Your task to perform on an android device: Turn on the flashlight Image 0: 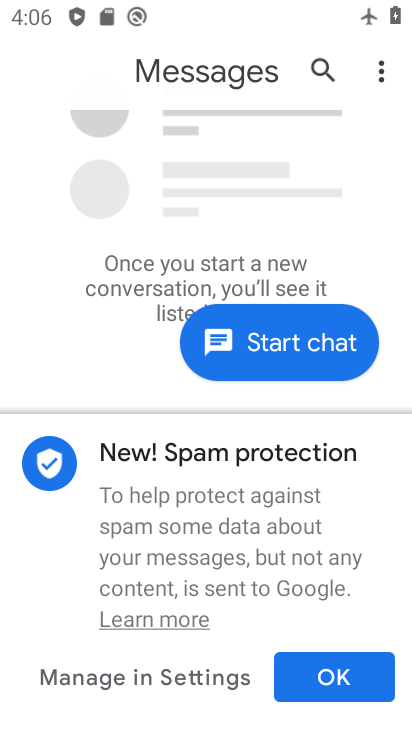
Step 0: press home button
Your task to perform on an android device: Turn on the flashlight Image 1: 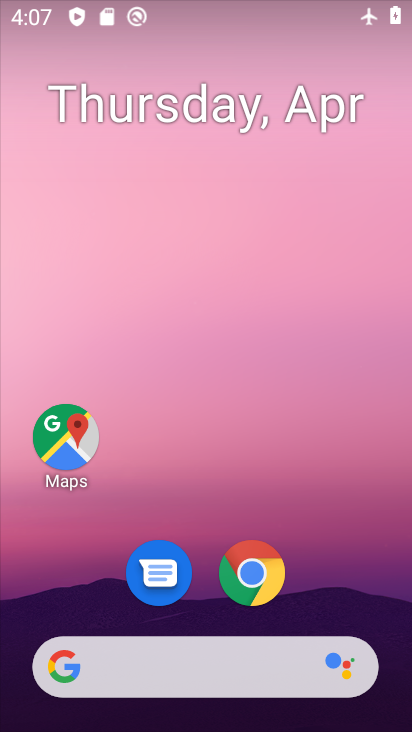
Step 1: drag from (347, 598) to (201, 19)
Your task to perform on an android device: Turn on the flashlight Image 2: 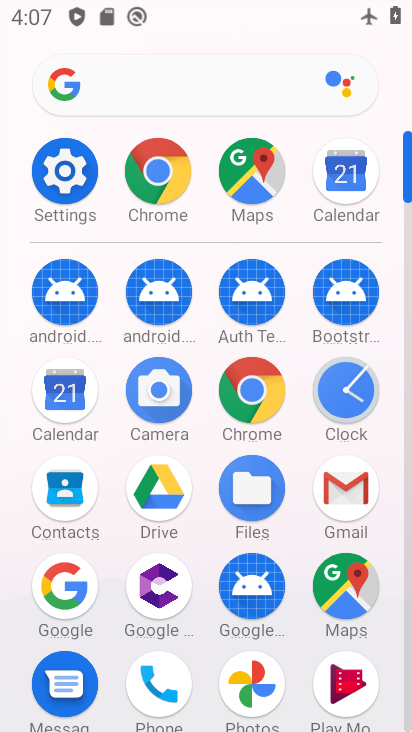
Step 2: click (52, 178)
Your task to perform on an android device: Turn on the flashlight Image 3: 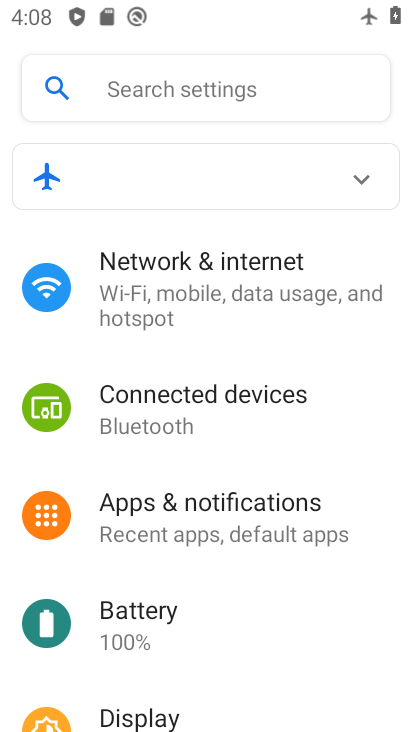
Step 3: task complete